Your task to perform on an android device: delete a single message in the gmail app Image 0: 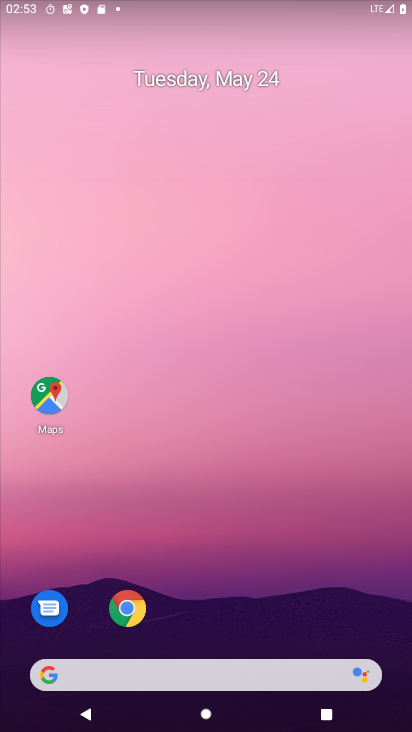
Step 0: drag from (214, 616) to (227, 239)
Your task to perform on an android device: delete a single message in the gmail app Image 1: 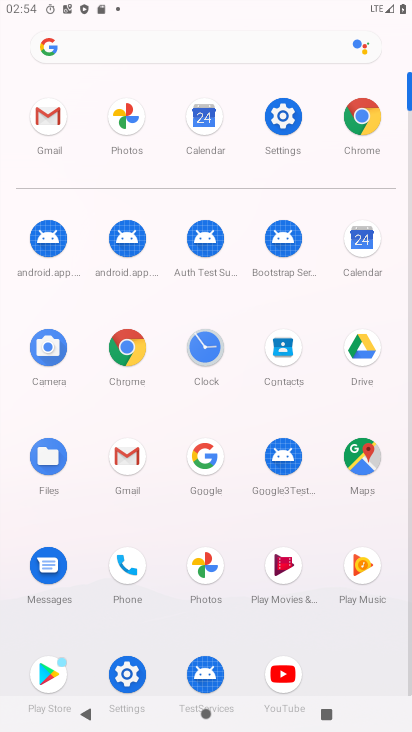
Step 1: click (48, 117)
Your task to perform on an android device: delete a single message in the gmail app Image 2: 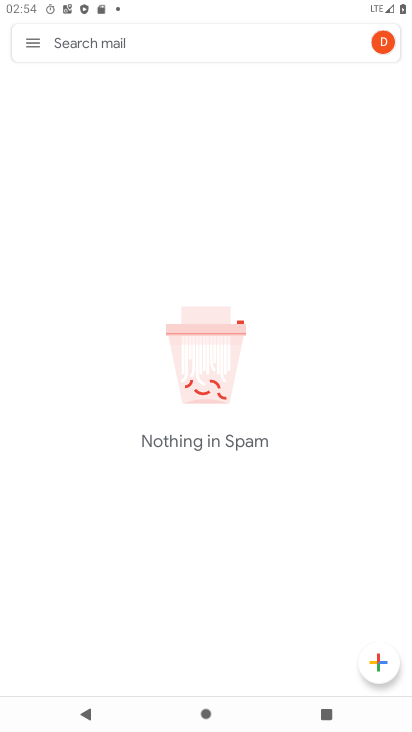
Step 2: click (31, 46)
Your task to perform on an android device: delete a single message in the gmail app Image 3: 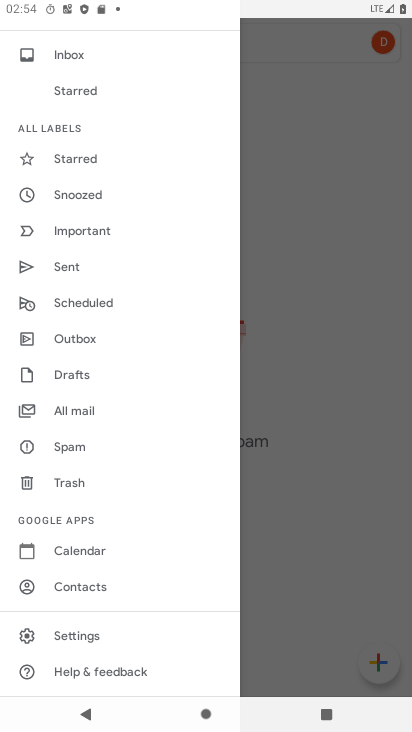
Step 3: click (71, 407)
Your task to perform on an android device: delete a single message in the gmail app Image 4: 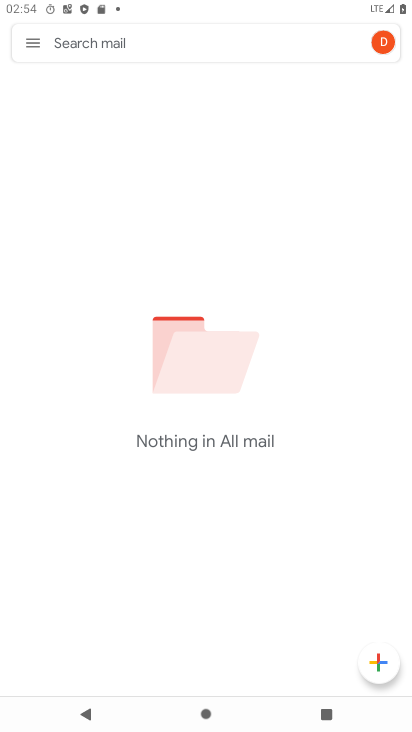
Step 4: task complete